Your task to perform on an android device: open the mobile data screen to see how much data has been used Image 0: 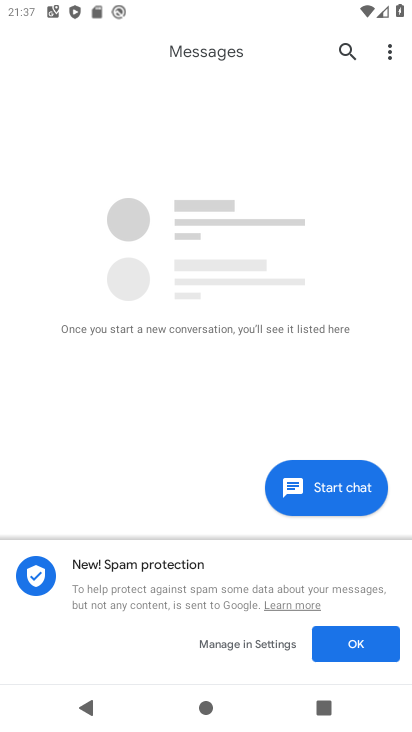
Step 0: press home button
Your task to perform on an android device: open the mobile data screen to see how much data has been used Image 1: 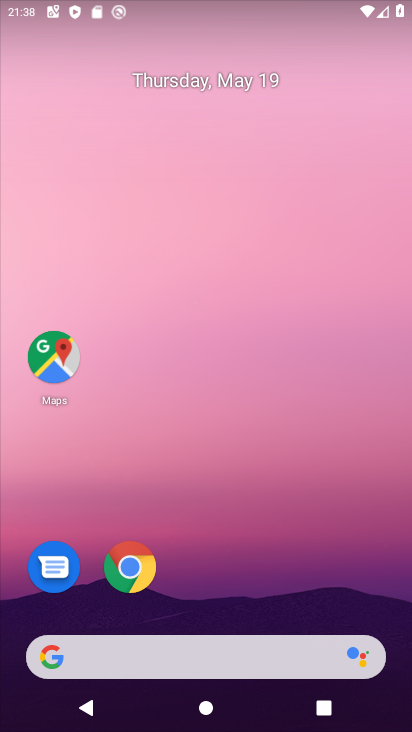
Step 1: drag from (241, 606) to (271, 156)
Your task to perform on an android device: open the mobile data screen to see how much data has been used Image 2: 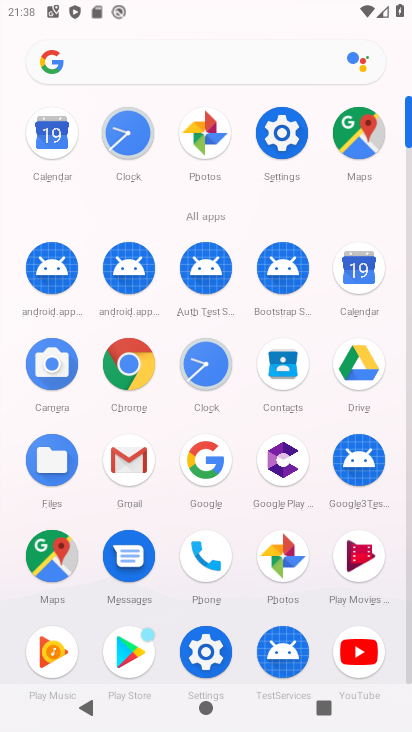
Step 2: click (288, 129)
Your task to perform on an android device: open the mobile data screen to see how much data has been used Image 3: 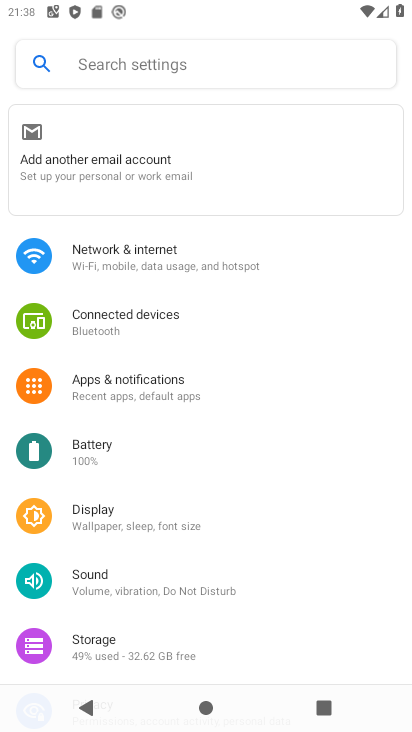
Step 3: click (182, 250)
Your task to perform on an android device: open the mobile data screen to see how much data has been used Image 4: 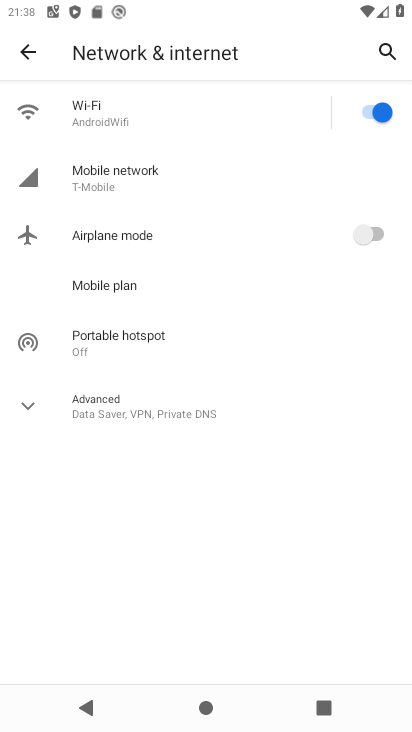
Step 4: click (97, 173)
Your task to perform on an android device: open the mobile data screen to see how much data has been used Image 5: 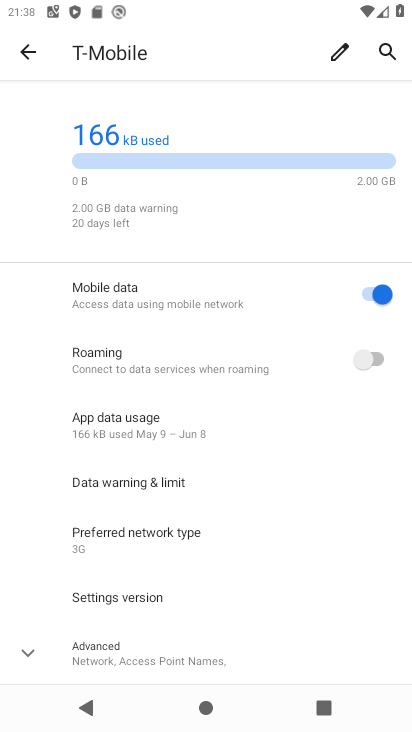
Step 5: click (152, 441)
Your task to perform on an android device: open the mobile data screen to see how much data has been used Image 6: 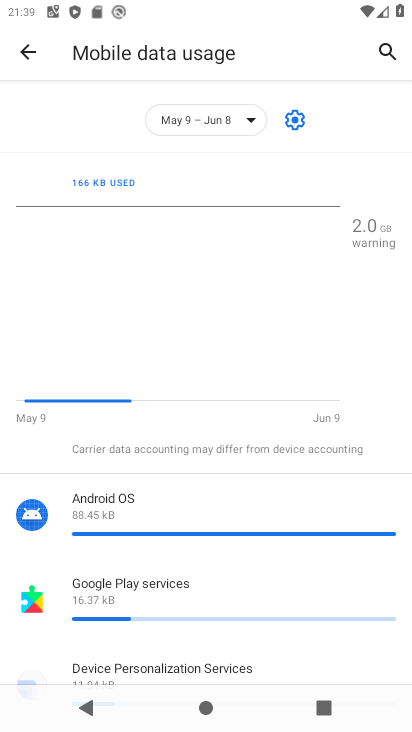
Step 6: task complete